Your task to perform on an android device: set an alarm Image 0: 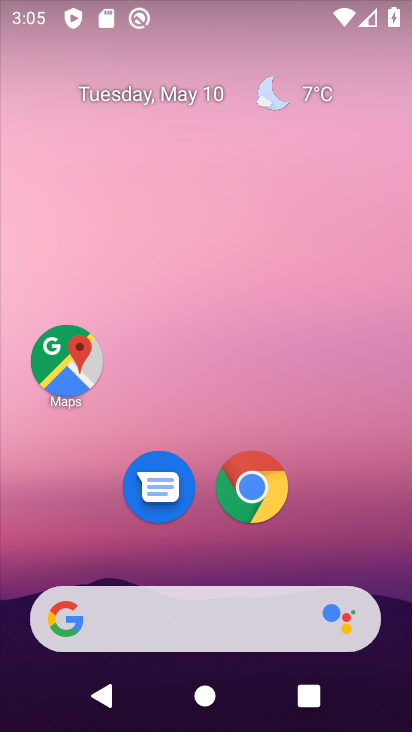
Step 0: drag from (351, 379) to (357, 93)
Your task to perform on an android device: set an alarm Image 1: 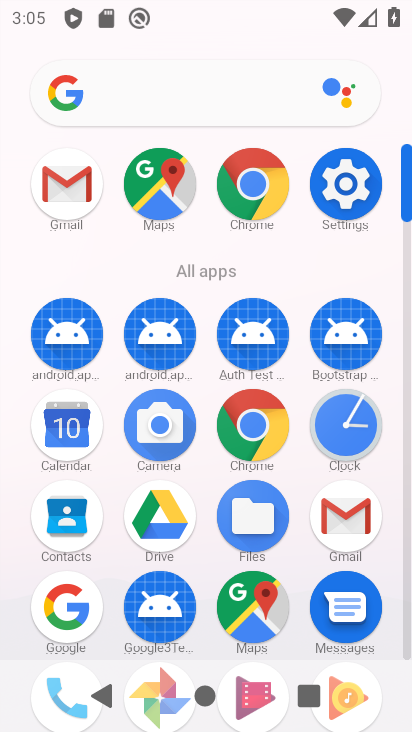
Step 1: click (349, 415)
Your task to perform on an android device: set an alarm Image 2: 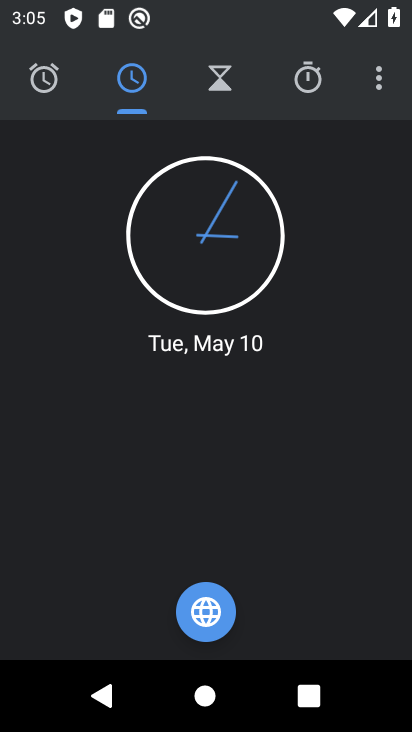
Step 2: click (49, 84)
Your task to perform on an android device: set an alarm Image 3: 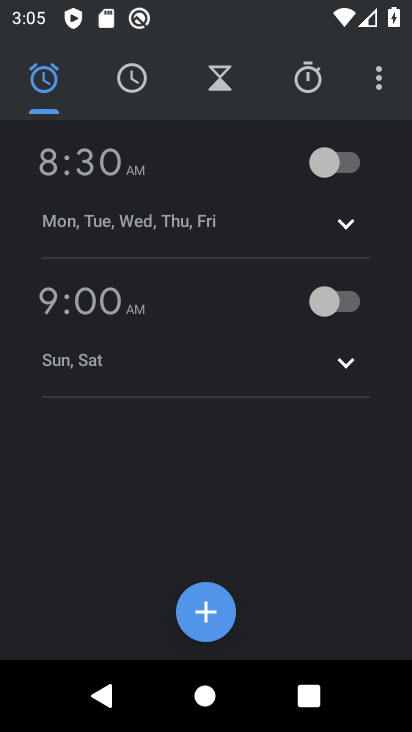
Step 3: click (197, 601)
Your task to perform on an android device: set an alarm Image 4: 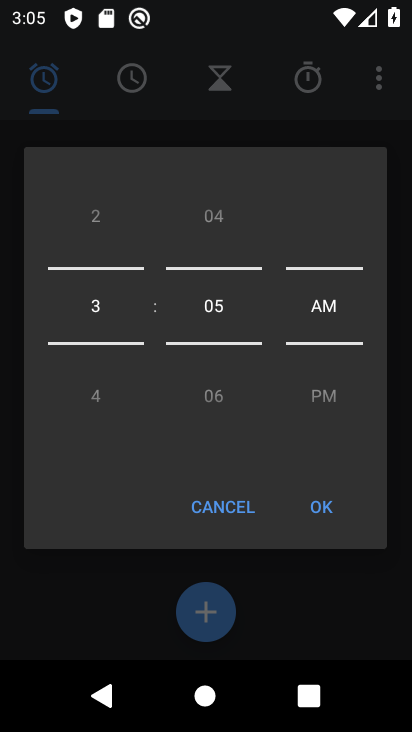
Step 4: click (326, 502)
Your task to perform on an android device: set an alarm Image 5: 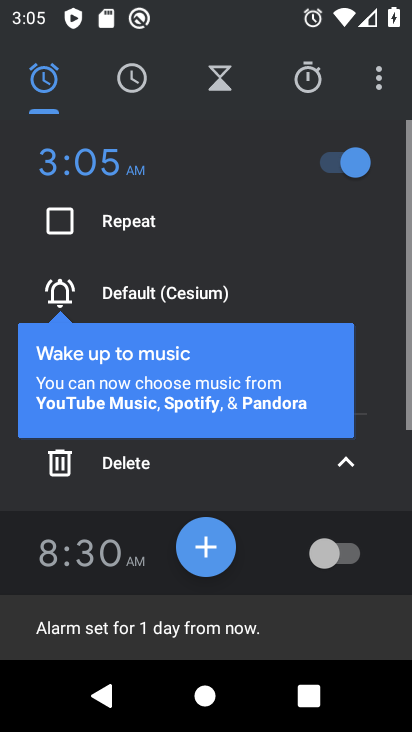
Step 5: task complete